Your task to perform on an android device: Go to CNN.com Image 0: 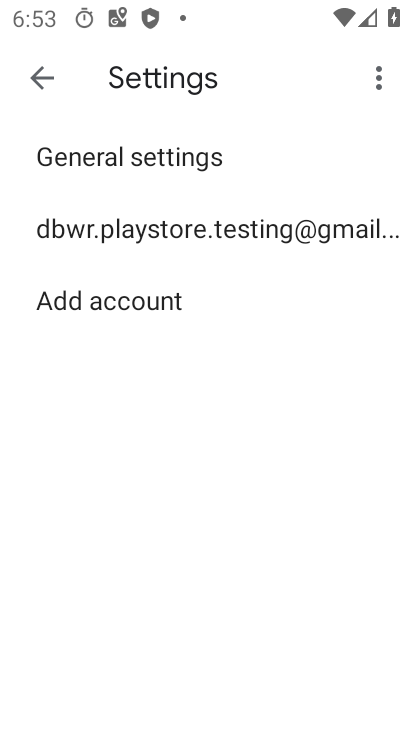
Step 0: press home button
Your task to perform on an android device: Go to CNN.com Image 1: 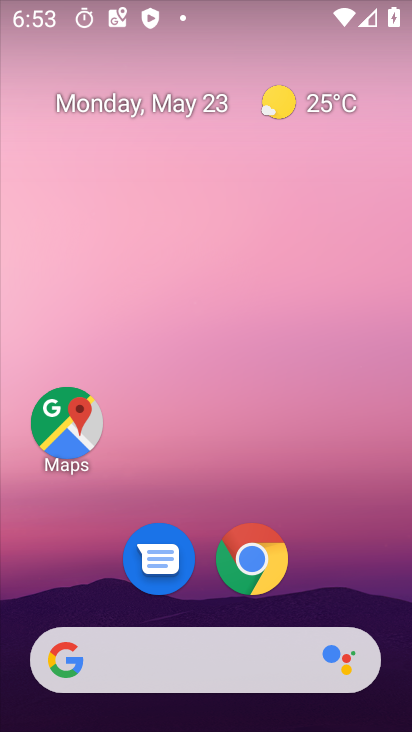
Step 1: drag from (395, 666) to (350, 51)
Your task to perform on an android device: Go to CNN.com Image 2: 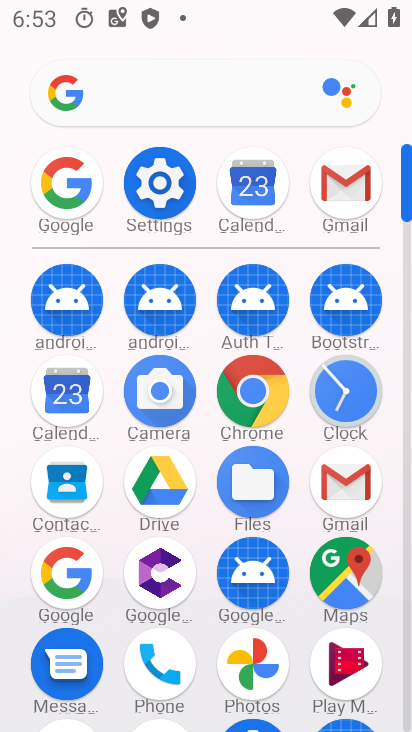
Step 2: click (69, 205)
Your task to perform on an android device: Go to CNN.com Image 3: 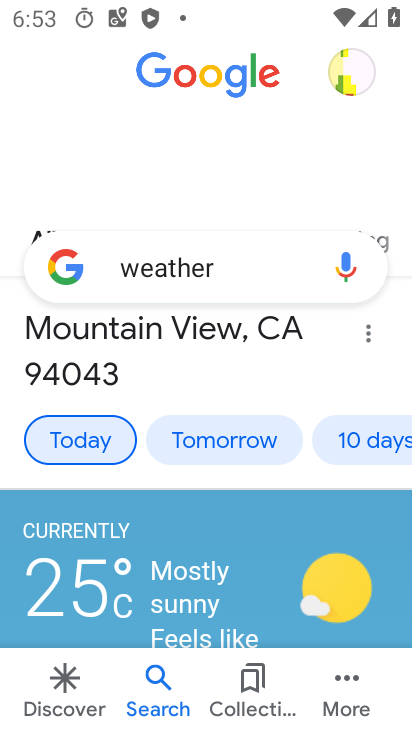
Step 3: press back button
Your task to perform on an android device: Go to CNN.com Image 4: 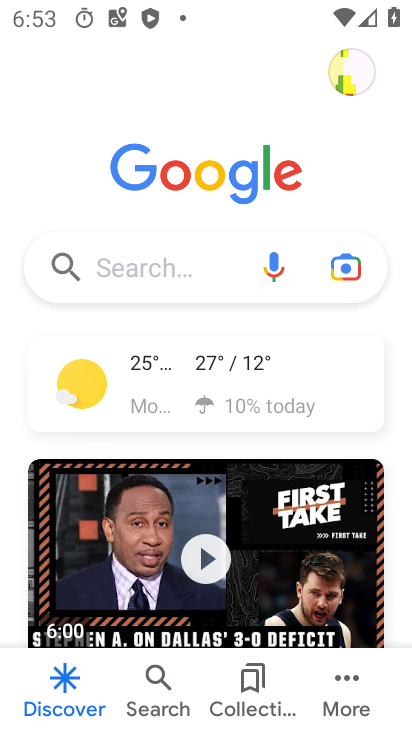
Step 4: click (131, 271)
Your task to perform on an android device: Go to CNN.com Image 5: 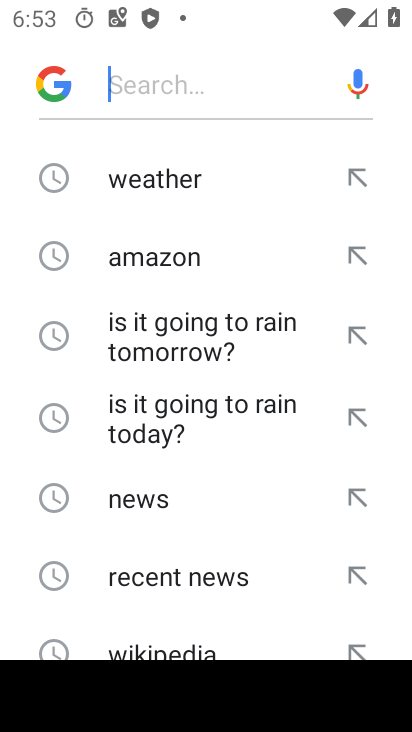
Step 5: drag from (139, 606) to (194, 144)
Your task to perform on an android device: Go to CNN.com Image 6: 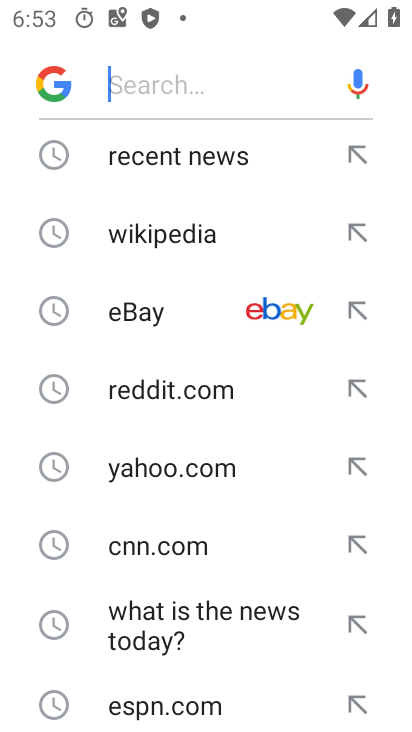
Step 6: click (189, 554)
Your task to perform on an android device: Go to CNN.com Image 7: 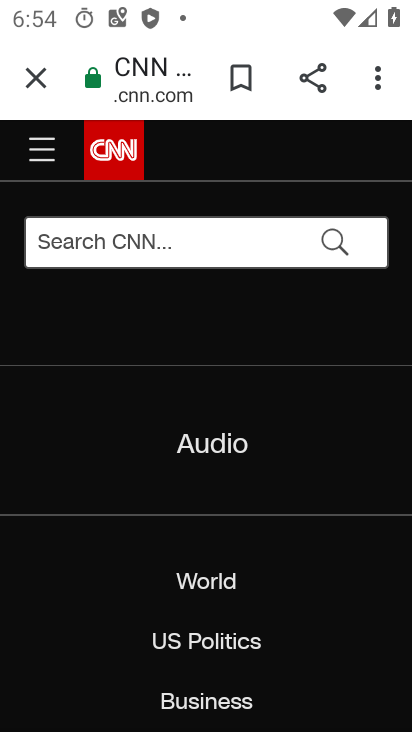
Step 7: task complete